Your task to perform on an android device: What's the weather? Image 0: 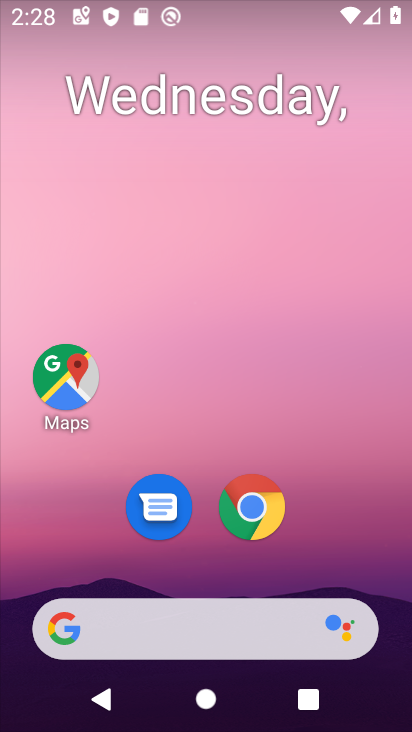
Step 0: click (150, 620)
Your task to perform on an android device: What's the weather? Image 1: 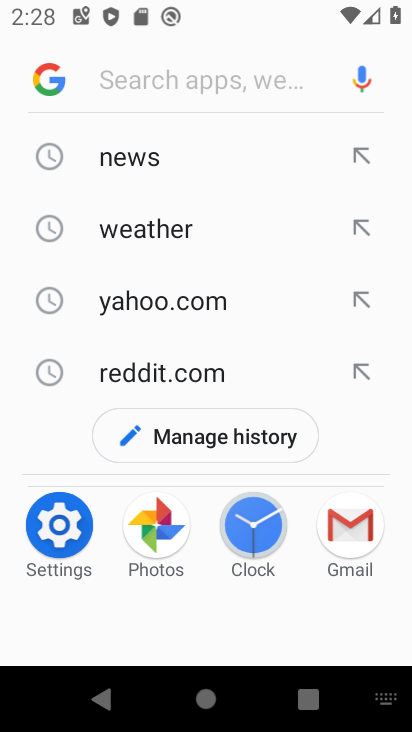
Step 1: click (130, 235)
Your task to perform on an android device: What's the weather? Image 2: 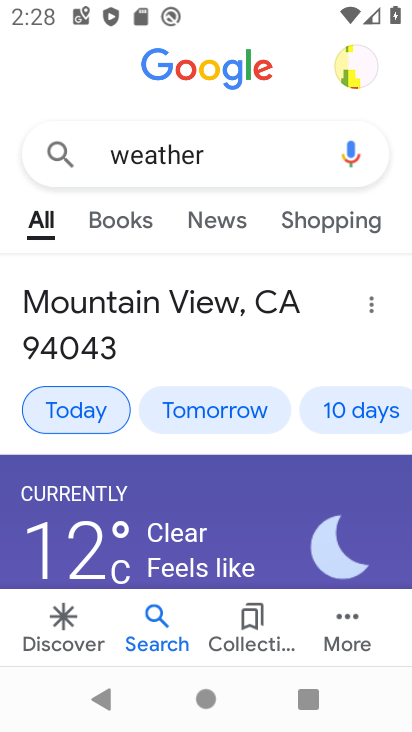
Step 2: click (339, 398)
Your task to perform on an android device: What's the weather? Image 3: 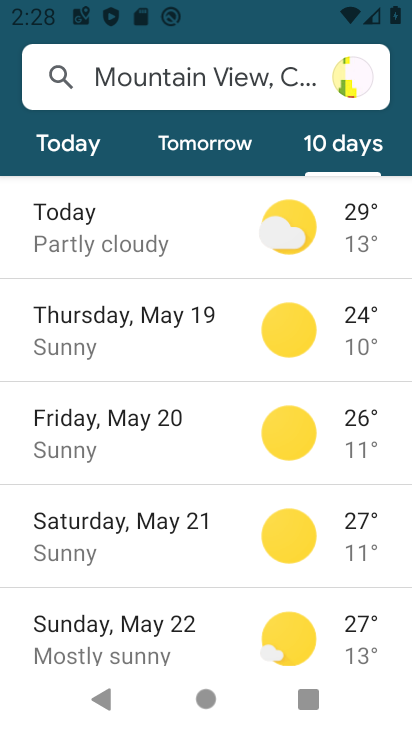
Step 3: drag from (146, 438) to (158, 175)
Your task to perform on an android device: What's the weather? Image 4: 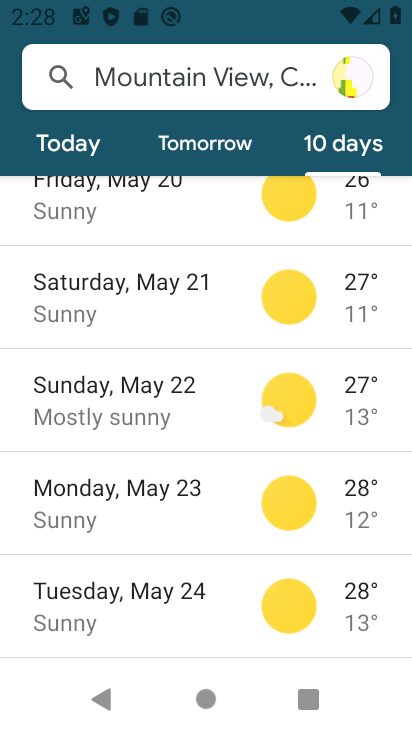
Step 4: click (58, 140)
Your task to perform on an android device: What's the weather? Image 5: 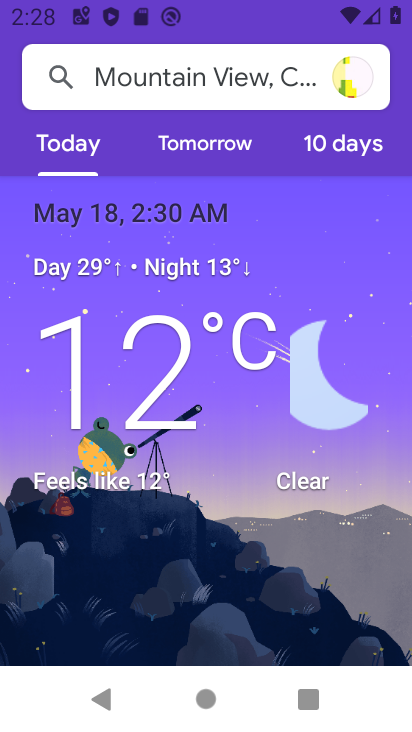
Step 5: task complete